Your task to perform on an android device: change the clock display to digital Image 0: 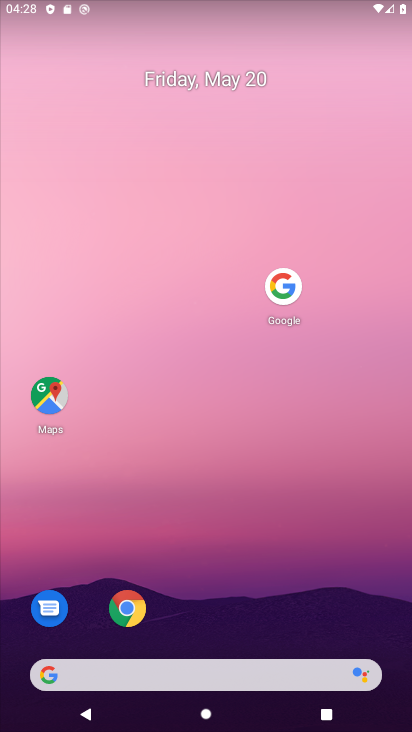
Step 0: drag from (187, 638) to (161, 64)
Your task to perform on an android device: change the clock display to digital Image 1: 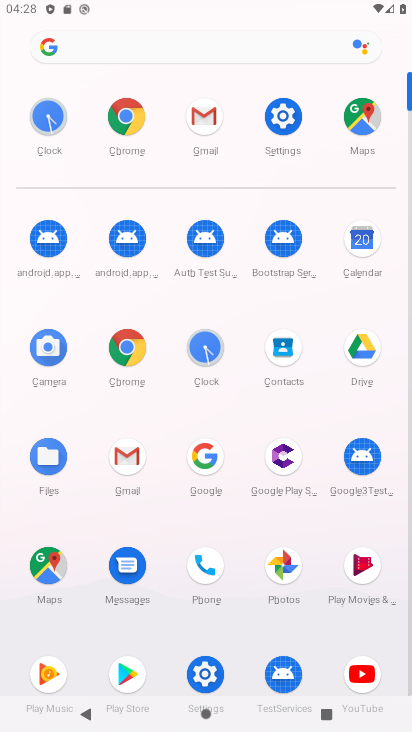
Step 1: click (209, 342)
Your task to perform on an android device: change the clock display to digital Image 2: 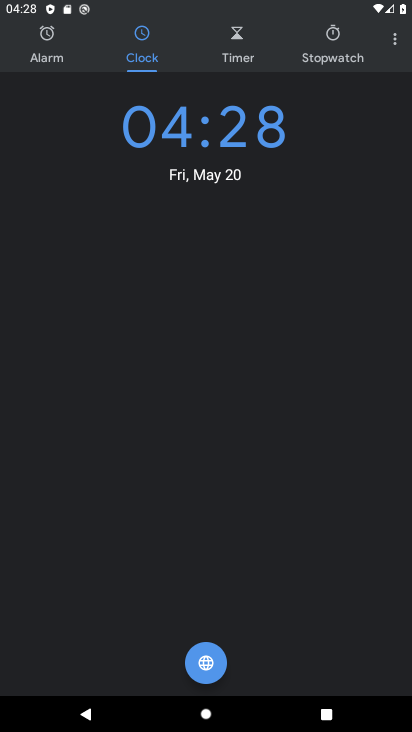
Step 2: click (406, 44)
Your task to perform on an android device: change the clock display to digital Image 3: 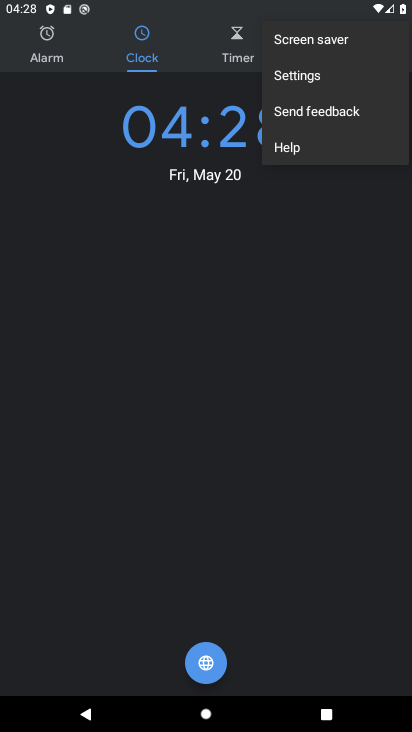
Step 3: click (339, 71)
Your task to perform on an android device: change the clock display to digital Image 4: 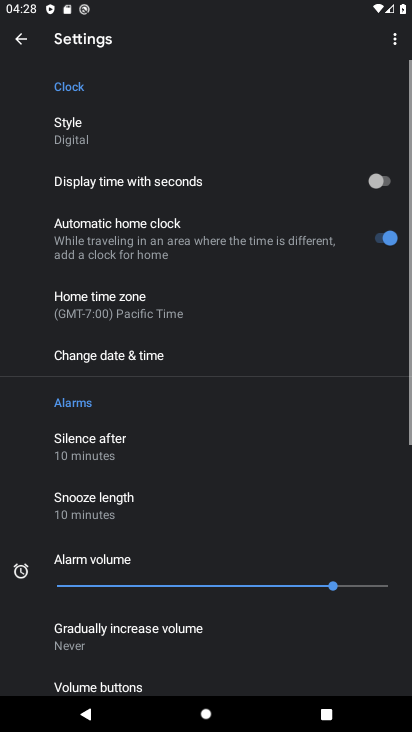
Step 4: click (111, 143)
Your task to perform on an android device: change the clock display to digital Image 5: 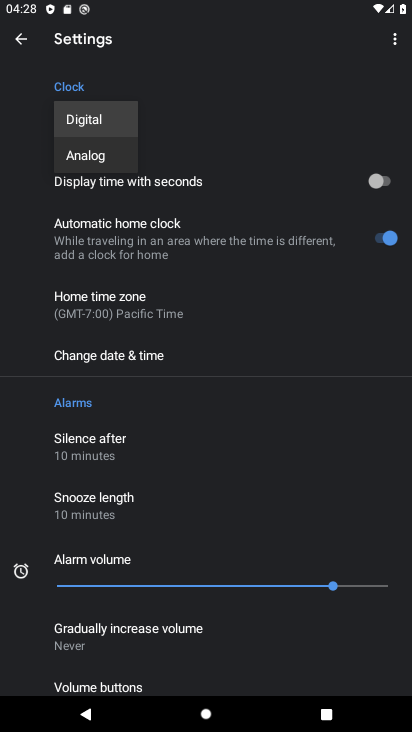
Step 5: click (93, 119)
Your task to perform on an android device: change the clock display to digital Image 6: 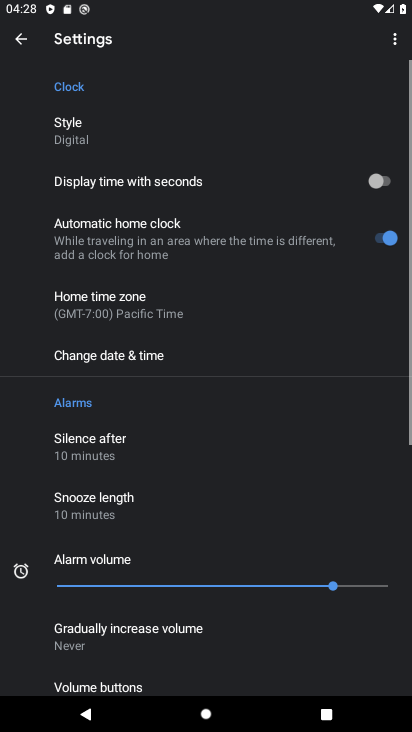
Step 6: task complete